Your task to perform on an android device: Open accessibility settings Image 0: 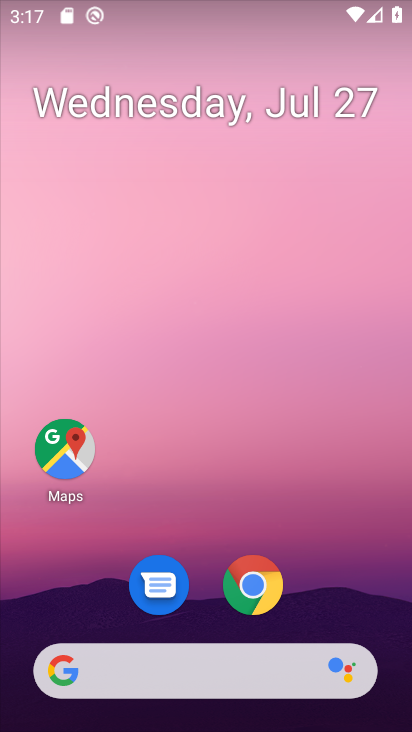
Step 0: drag from (323, 589) to (326, 30)
Your task to perform on an android device: Open accessibility settings Image 1: 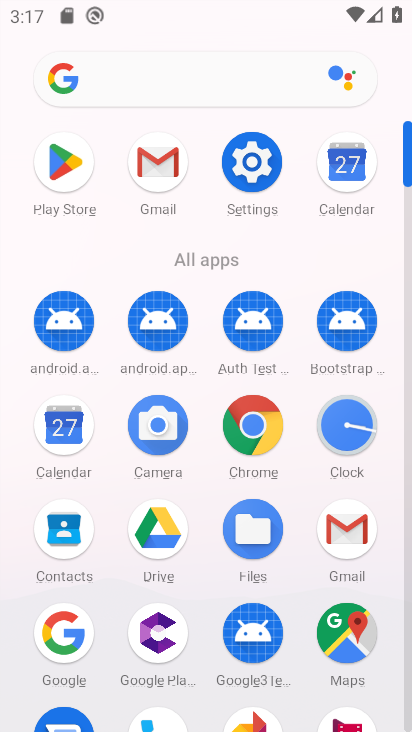
Step 1: click (252, 163)
Your task to perform on an android device: Open accessibility settings Image 2: 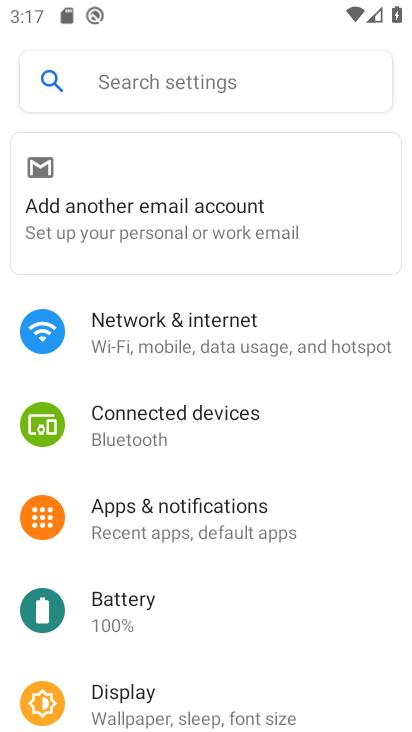
Step 2: drag from (191, 526) to (217, 68)
Your task to perform on an android device: Open accessibility settings Image 3: 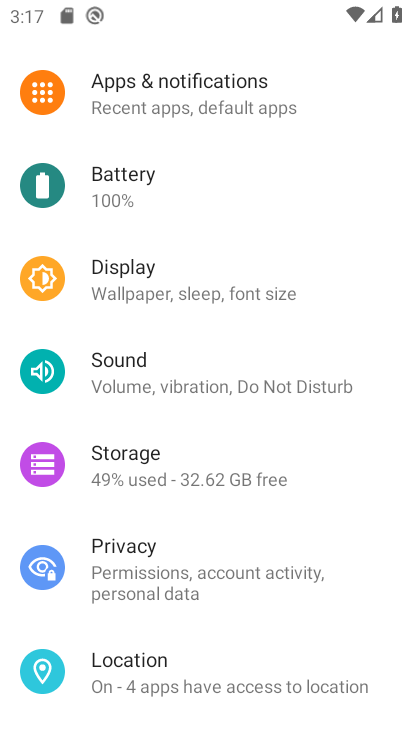
Step 3: drag from (239, 646) to (258, 172)
Your task to perform on an android device: Open accessibility settings Image 4: 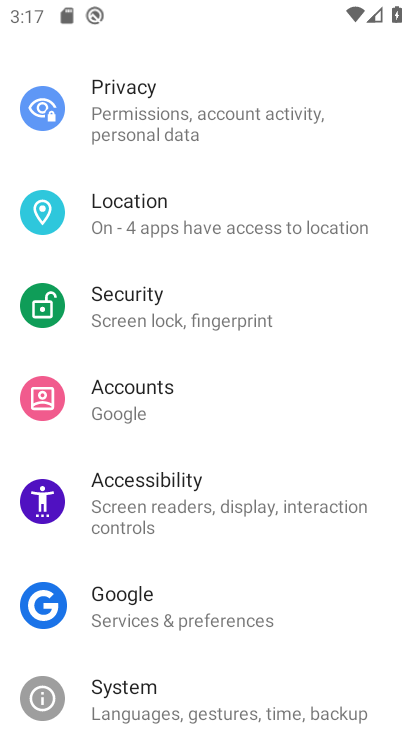
Step 4: click (244, 496)
Your task to perform on an android device: Open accessibility settings Image 5: 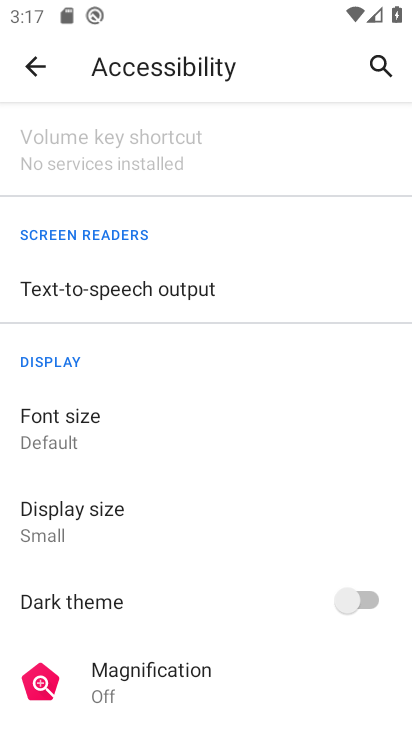
Step 5: task complete